Your task to perform on an android device: set the timer Image 0: 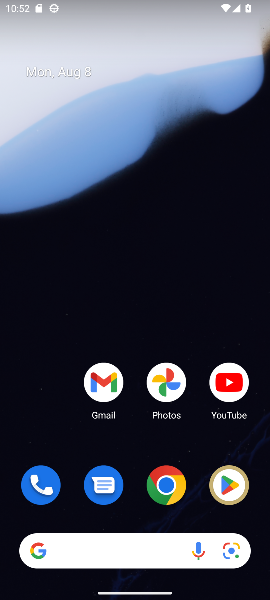
Step 0: drag from (133, 500) to (152, 71)
Your task to perform on an android device: set the timer Image 1: 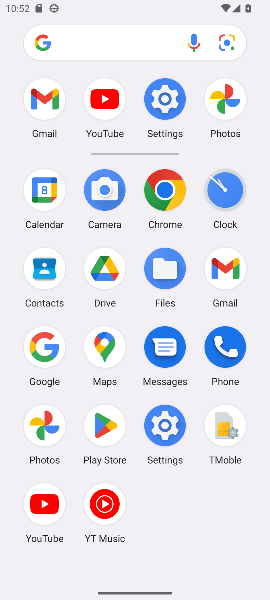
Step 1: click (227, 180)
Your task to perform on an android device: set the timer Image 2: 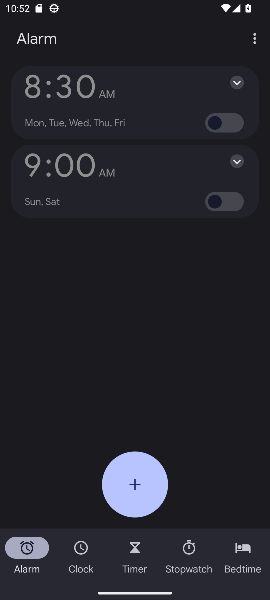
Step 2: click (138, 560)
Your task to perform on an android device: set the timer Image 3: 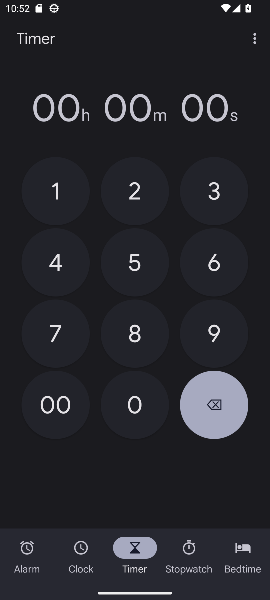
Step 3: click (140, 267)
Your task to perform on an android device: set the timer Image 4: 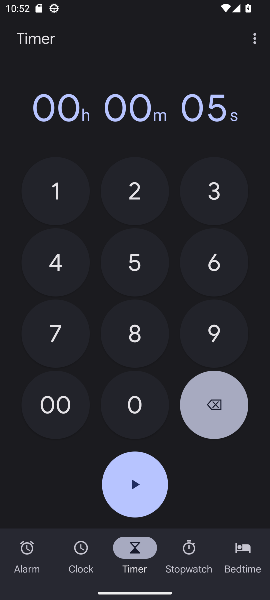
Step 4: click (48, 264)
Your task to perform on an android device: set the timer Image 5: 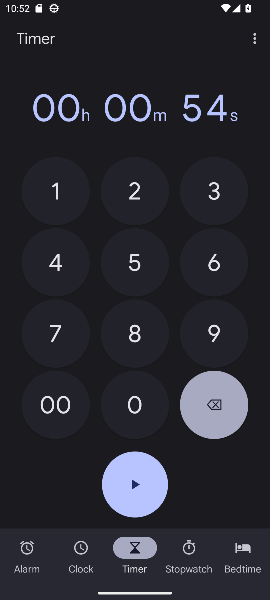
Step 5: click (219, 188)
Your task to perform on an android device: set the timer Image 6: 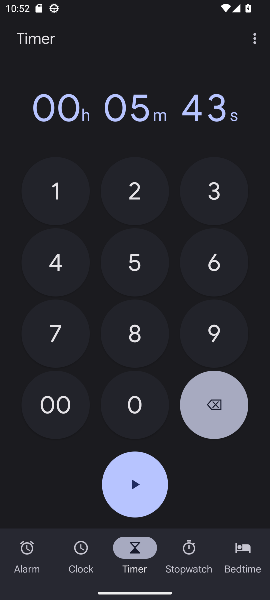
Step 6: click (134, 254)
Your task to perform on an android device: set the timer Image 7: 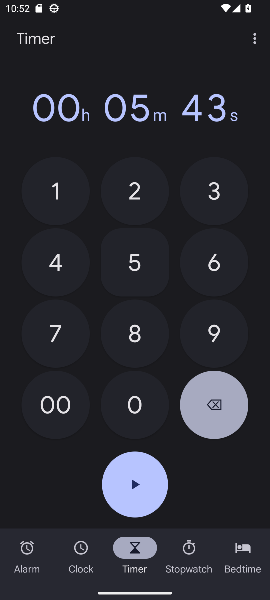
Step 7: click (134, 254)
Your task to perform on an android device: set the timer Image 8: 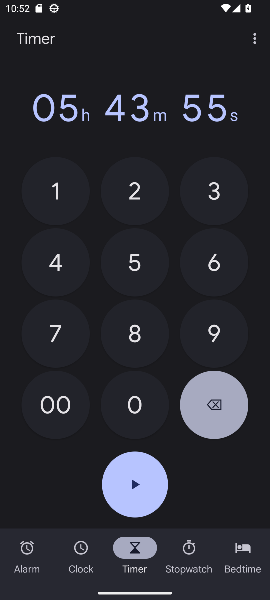
Step 8: click (136, 472)
Your task to perform on an android device: set the timer Image 9: 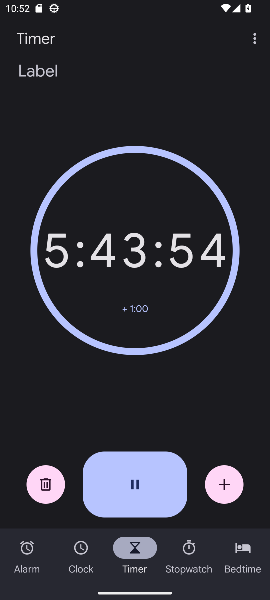
Step 9: task complete